Your task to perform on an android device: What is the news today? Image 0: 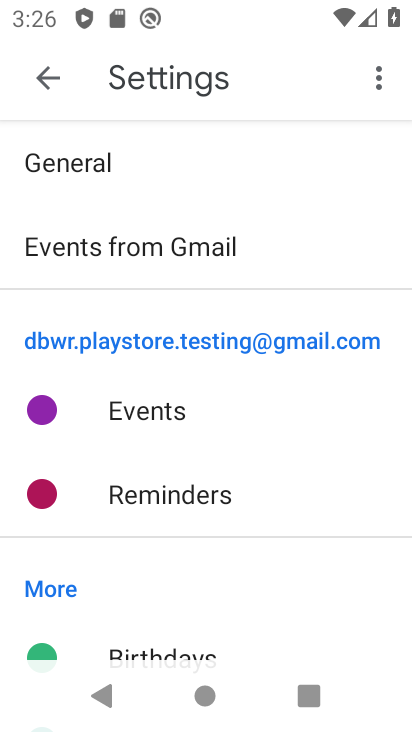
Step 0: press home button
Your task to perform on an android device: What is the news today? Image 1: 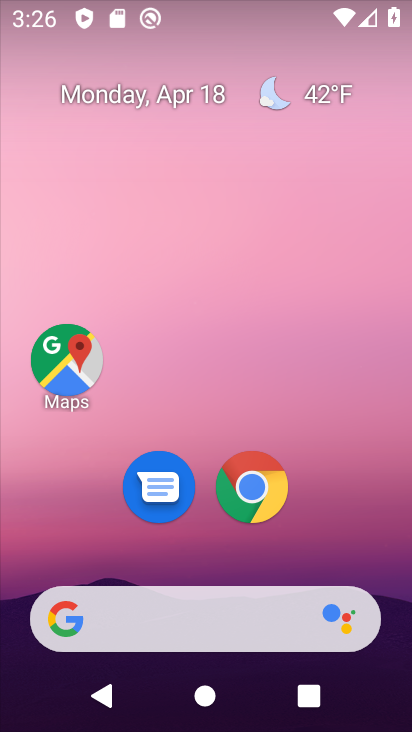
Step 1: click (185, 599)
Your task to perform on an android device: What is the news today? Image 2: 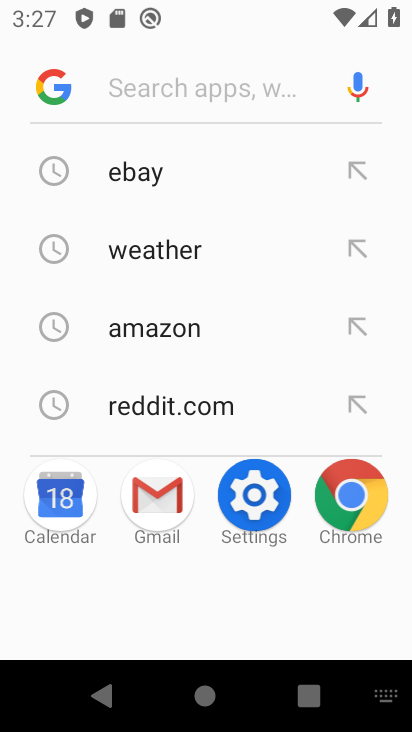
Step 2: click (187, 95)
Your task to perform on an android device: What is the news today? Image 3: 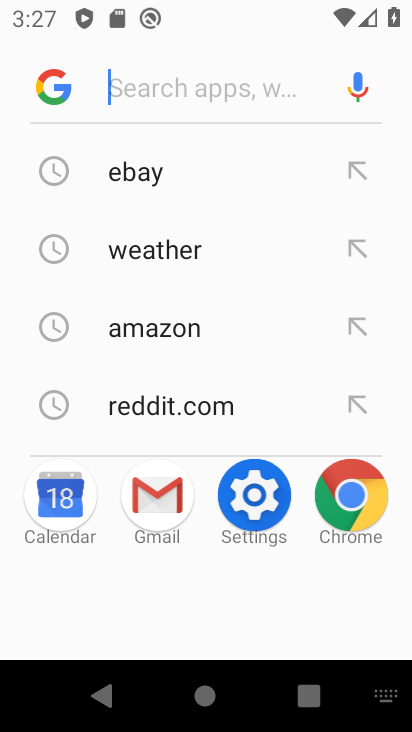
Step 3: type "what is the news today?"
Your task to perform on an android device: What is the news today? Image 4: 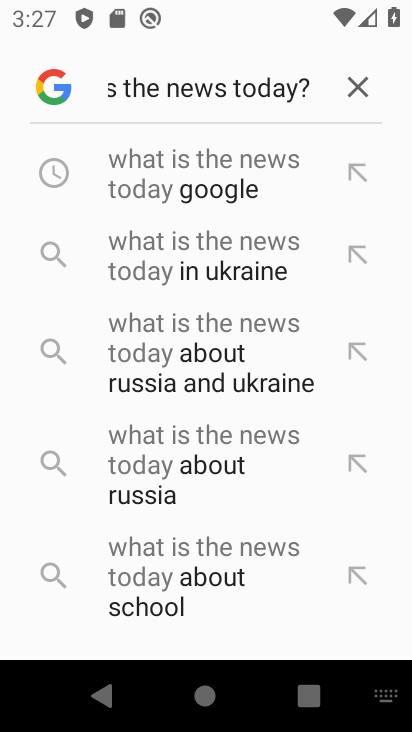
Step 4: click (207, 184)
Your task to perform on an android device: What is the news today? Image 5: 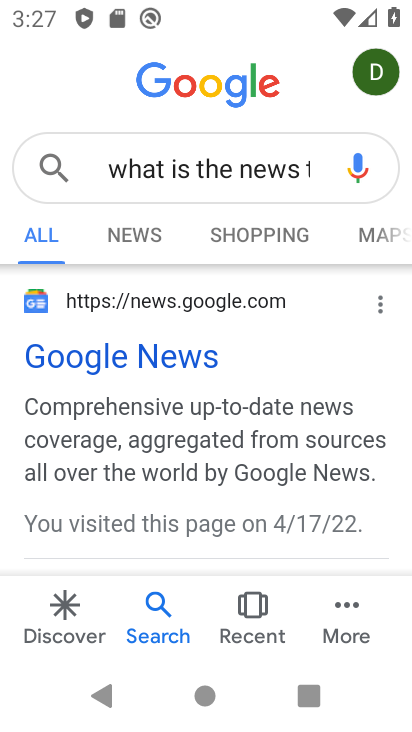
Step 5: click (142, 236)
Your task to perform on an android device: What is the news today? Image 6: 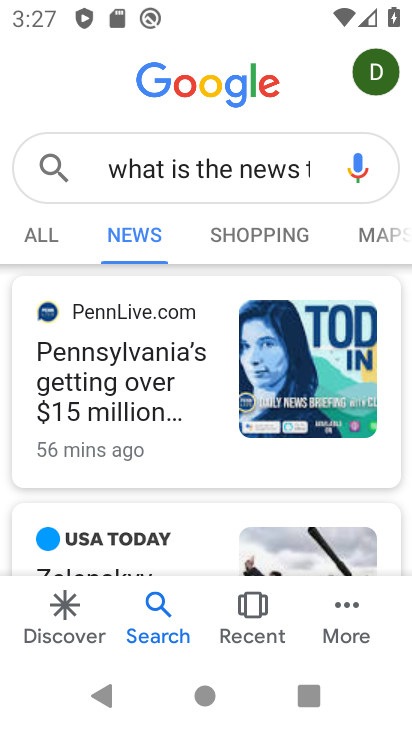
Step 6: task complete